Your task to perform on an android device: Open eBay Image 0: 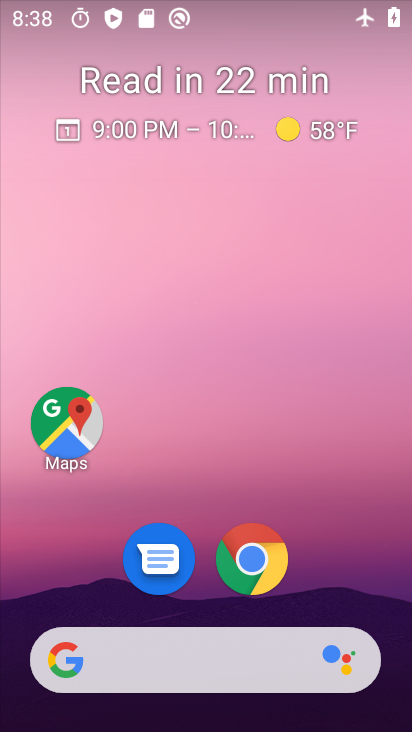
Step 0: click (257, 563)
Your task to perform on an android device: Open eBay Image 1: 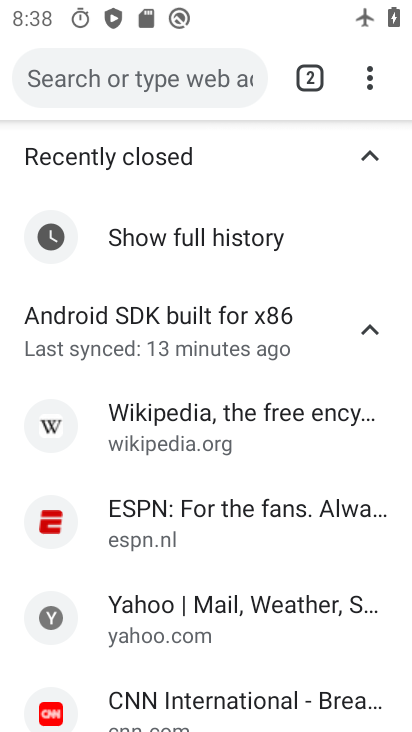
Step 1: click (187, 64)
Your task to perform on an android device: Open eBay Image 2: 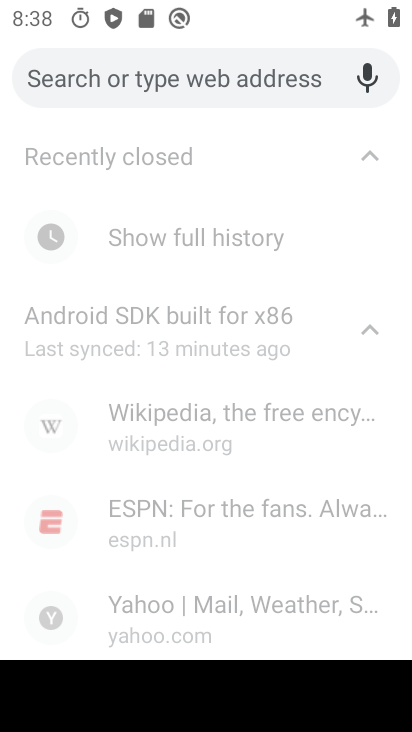
Step 2: type "eBay"
Your task to perform on an android device: Open eBay Image 3: 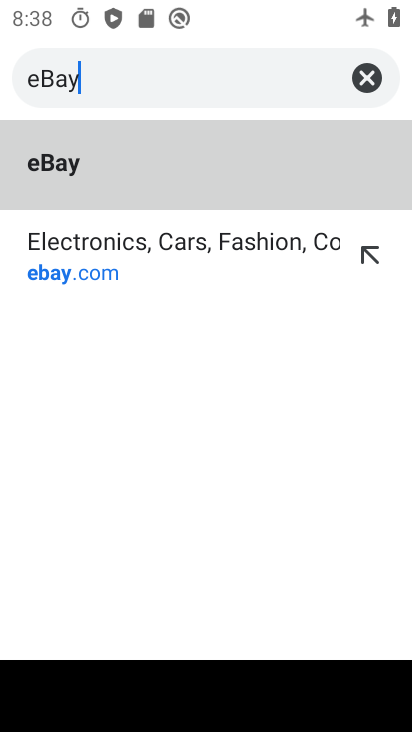
Step 3: type ""
Your task to perform on an android device: Open eBay Image 4: 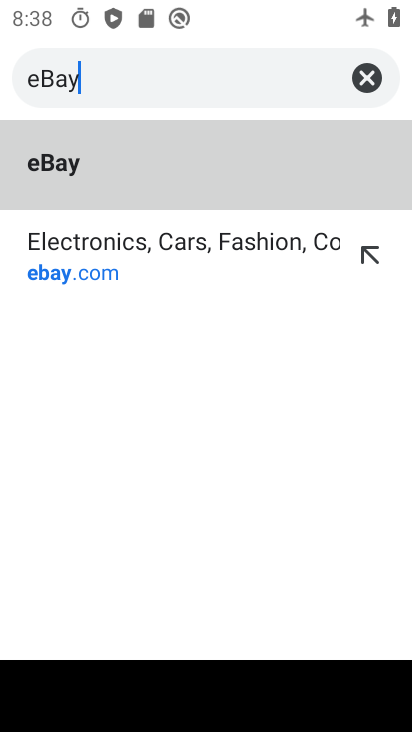
Step 4: click (116, 177)
Your task to perform on an android device: Open eBay Image 5: 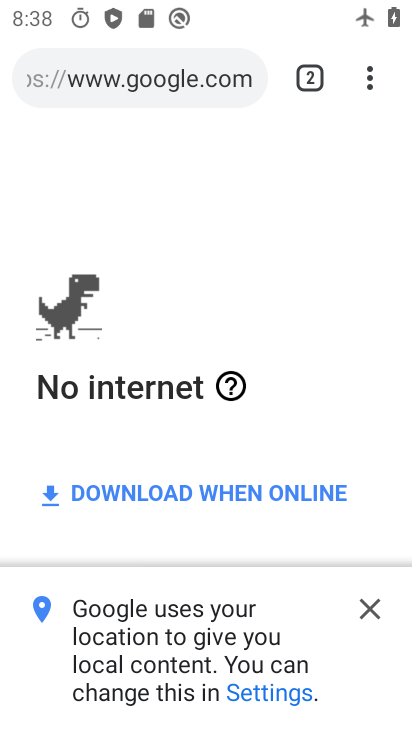
Step 5: task complete